Your task to perform on an android device: check out phone information Image 0: 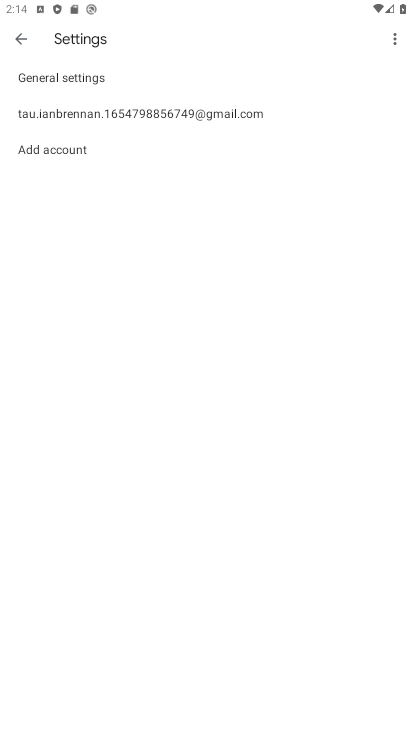
Step 0: press back button
Your task to perform on an android device: check out phone information Image 1: 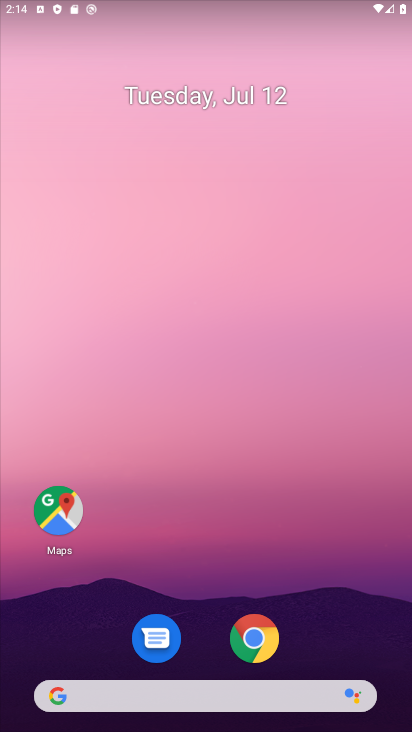
Step 1: drag from (230, 661) to (246, 53)
Your task to perform on an android device: check out phone information Image 2: 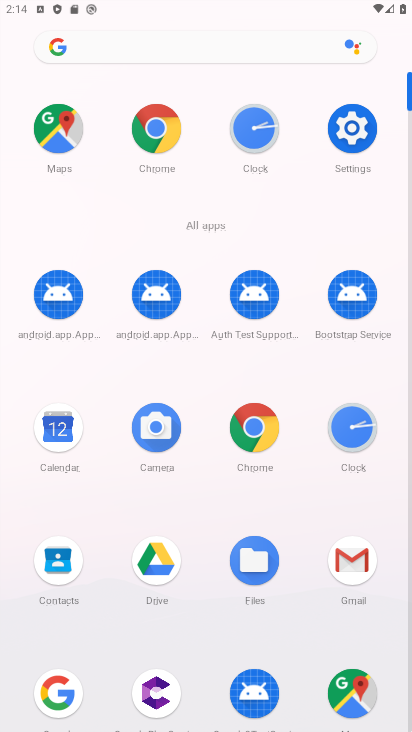
Step 2: click (354, 133)
Your task to perform on an android device: check out phone information Image 3: 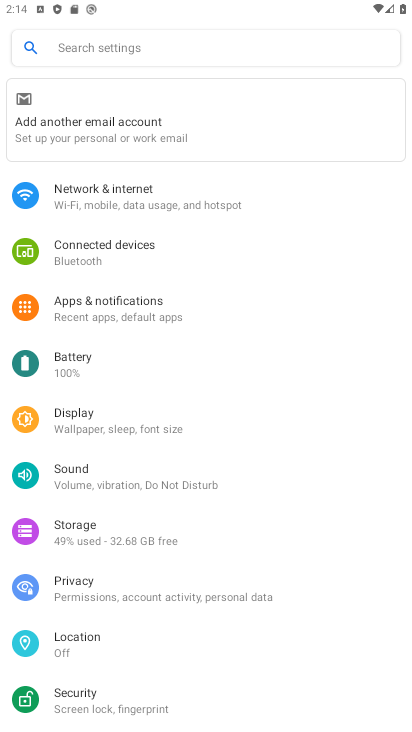
Step 3: drag from (127, 685) to (211, 76)
Your task to perform on an android device: check out phone information Image 4: 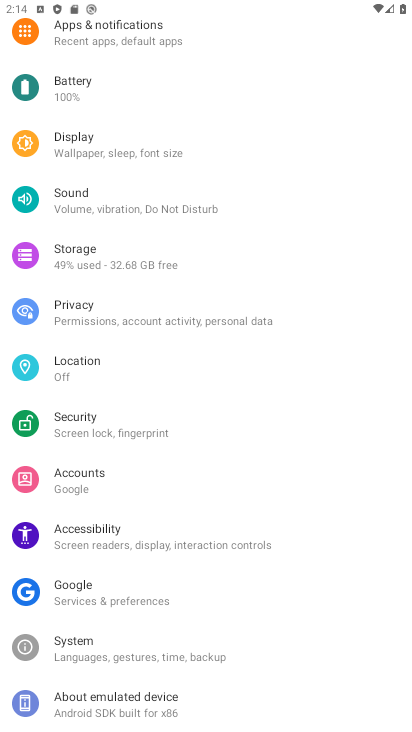
Step 4: click (123, 698)
Your task to perform on an android device: check out phone information Image 5: 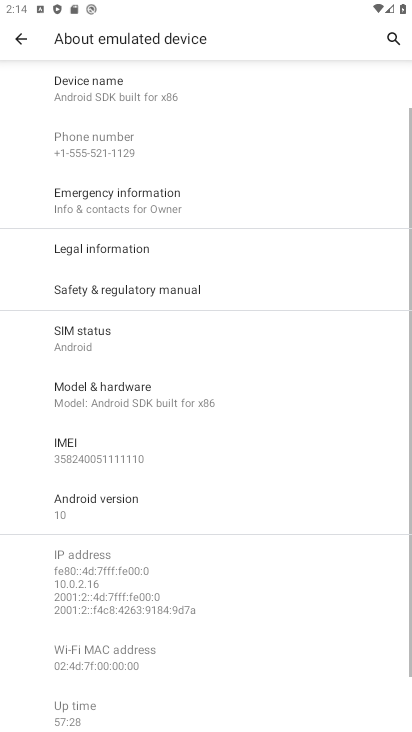
Step 5: task complete